Your task to perform on an android device: delete the emails in spam in the gmail app Image 0: 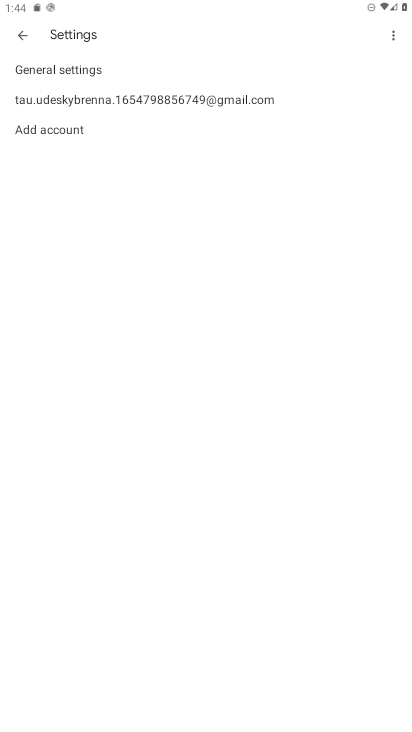
Step 0: task impossible